Your task to perform on an android device: Search for lg ultragear on newegg, select the first entry, add it to the cart, then select checkout. Image 0: 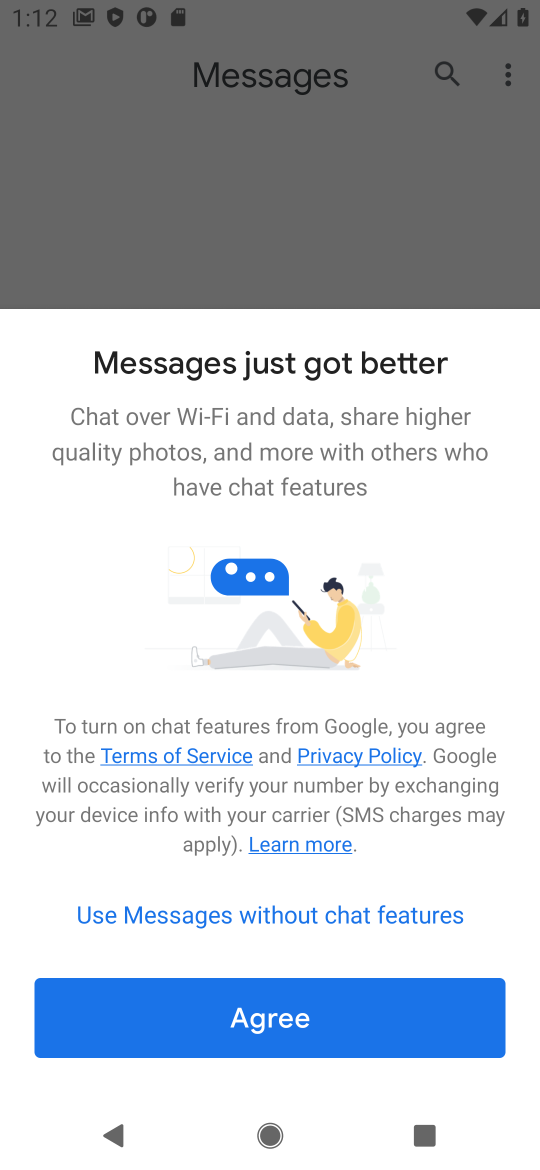
Step 0: task complete